Your task to perform on an android device: change text size in settings app Image 0: 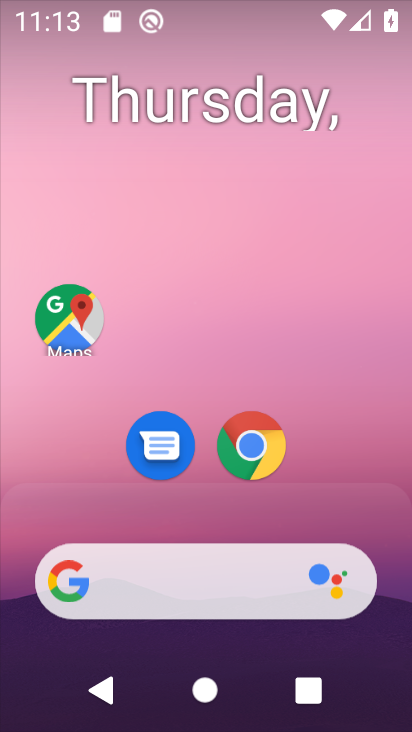
Step 0: drag from (160, 500) to (296, 0)
Your task to perform on an android device: change text size in settings app Image 1: 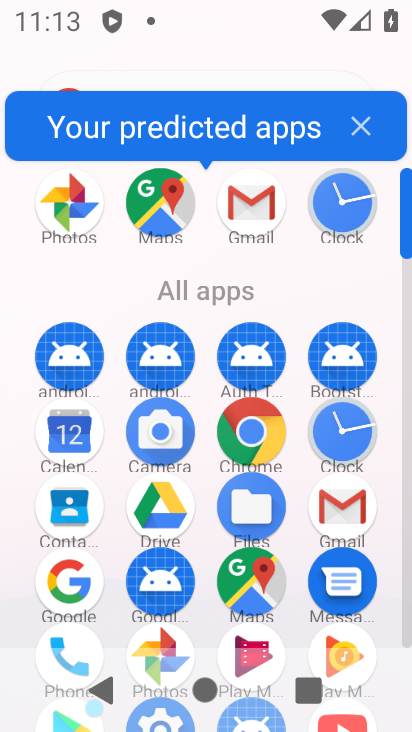
Step 1: drag from (156, 521) to (283, 169)
Your task to perform on an android device: change text size in settings app Image 2: 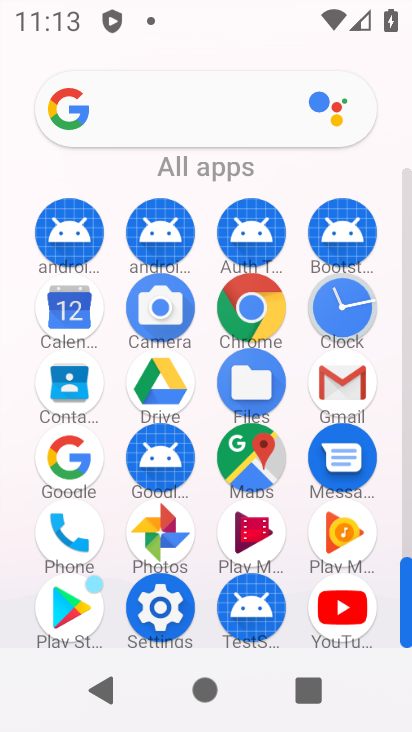
Step 2: click (171, 600)
Your task to perform on an android device: change text size in settings app Image 3: 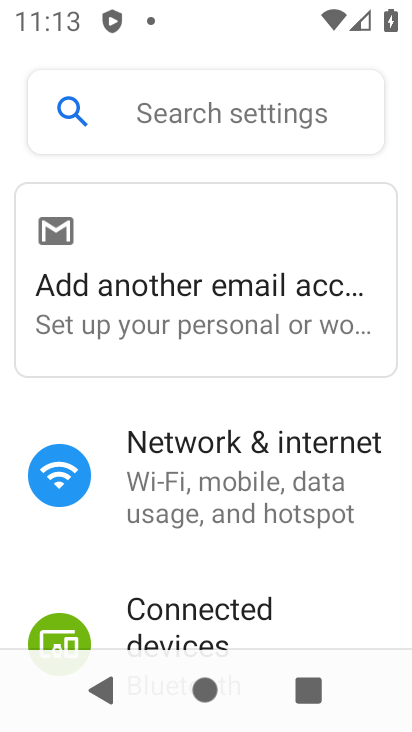
Step 3: drag from (253, 538) to (378, 151)
Your task to perform on an android device: change text size in settings app Image 4: 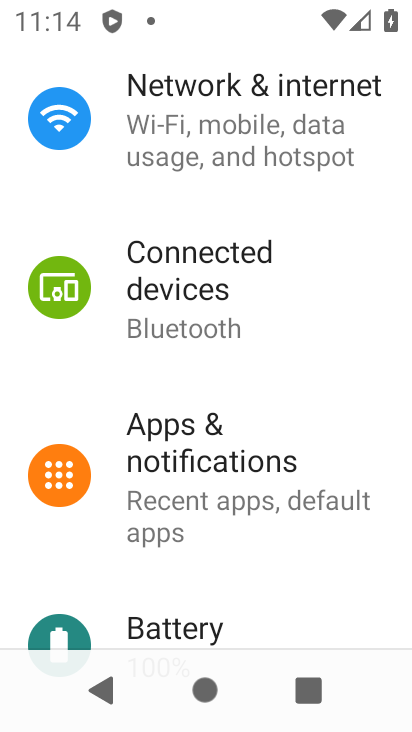
Step 4: drag from (246, 537) to (335, 205)
Your task to perform on an android device: change text size in settings app Image 5: 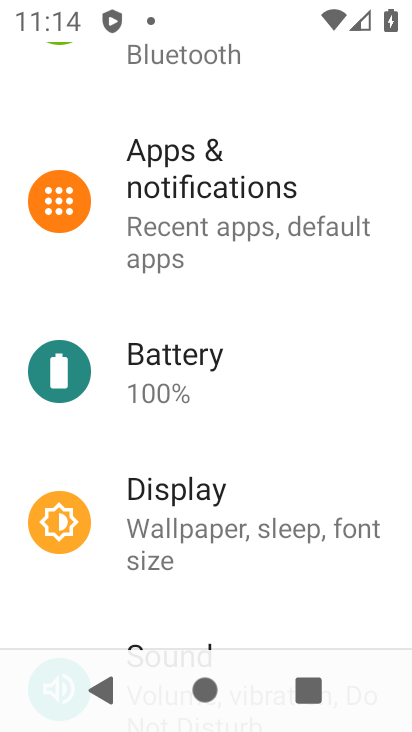
Step 5: drag from (214, 605) to (293, 273)
Your task to perform on an android device: change text size in settings app Image 6: 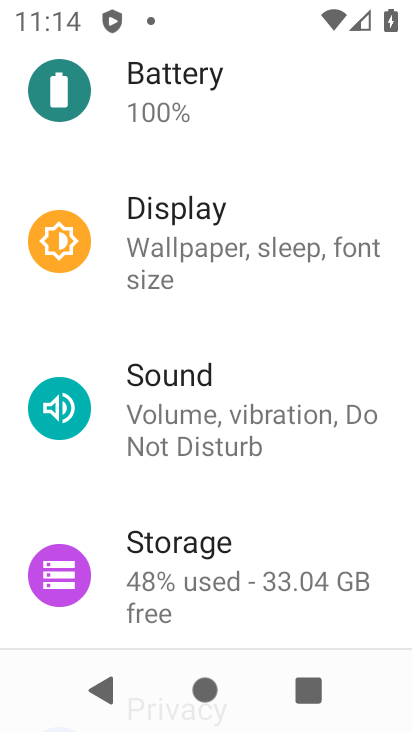
Step 6: click (198, 249)
Your task to perform on an android device: change text size in settings app Image 7: 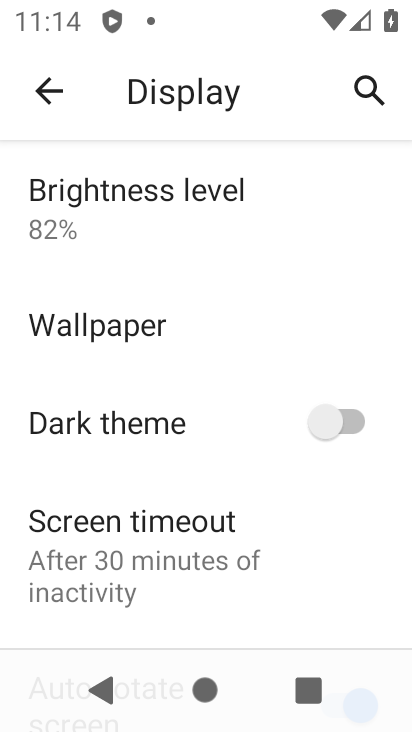
Step 7: drag from (105, 534) to (218, 174)
Your task to perform on an android device: change text size in settings app Image 8: 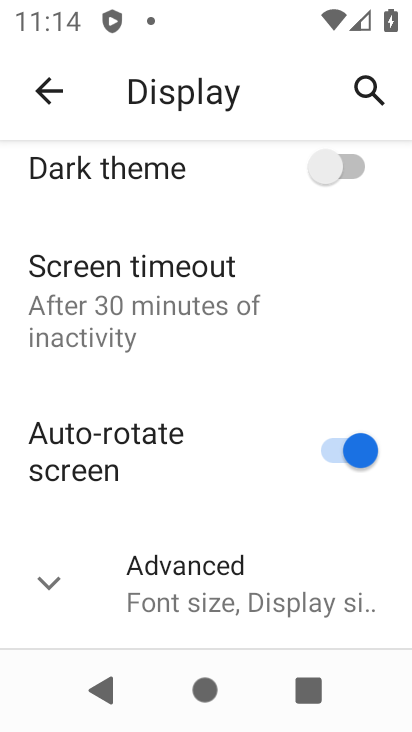
Step 8: click (206, 577)
Your task to perform on an android device: change text size in settings app Image 9: 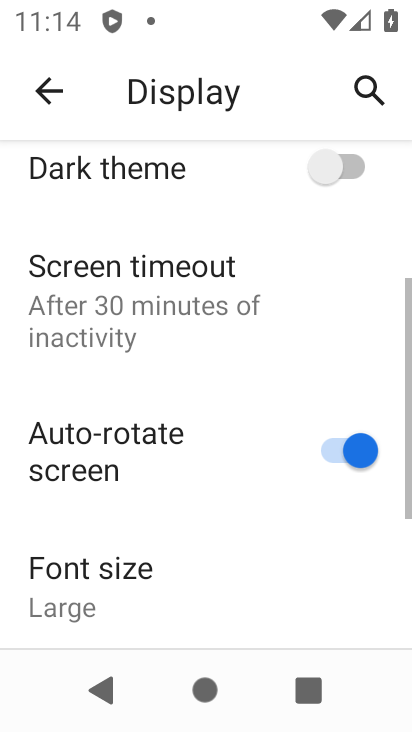
Step 9: drag from (206, 577) to (268, 319)
Your task to perform on an android device: change text size in settings app Image 10: 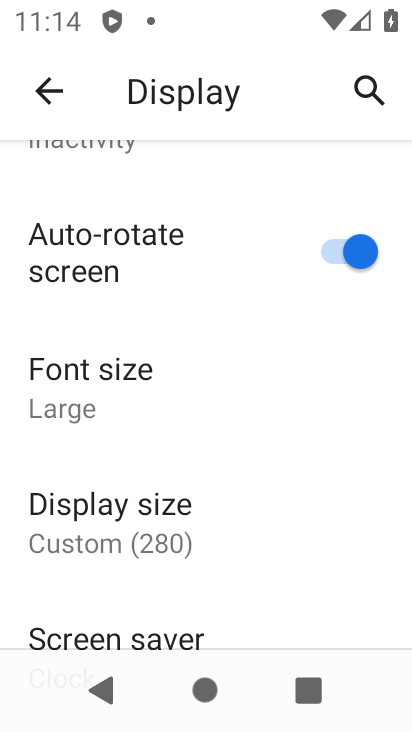
Step 10: click (214, 398)
Your task to perform on an android device: change text size in settings app Image 11: 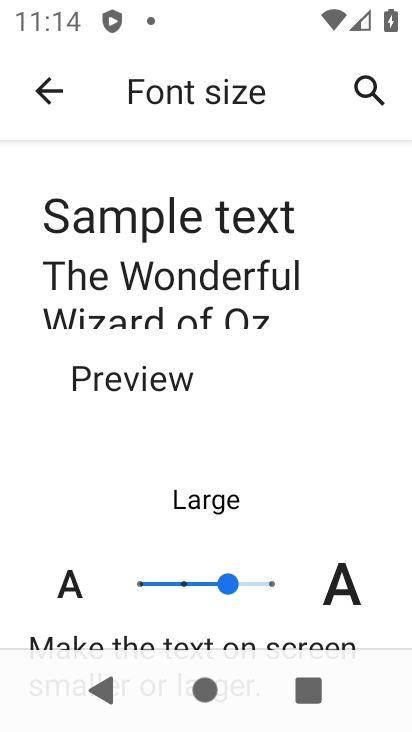
Step 11: task complete